Your task to perform on an android device: Open Google Chrome Image 0: 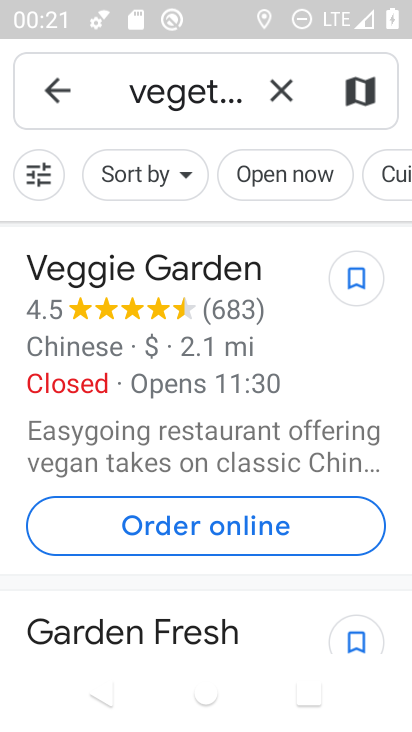
Step 0: press home button
Your task to perform on an android device: Open Google Chrome Image 1: 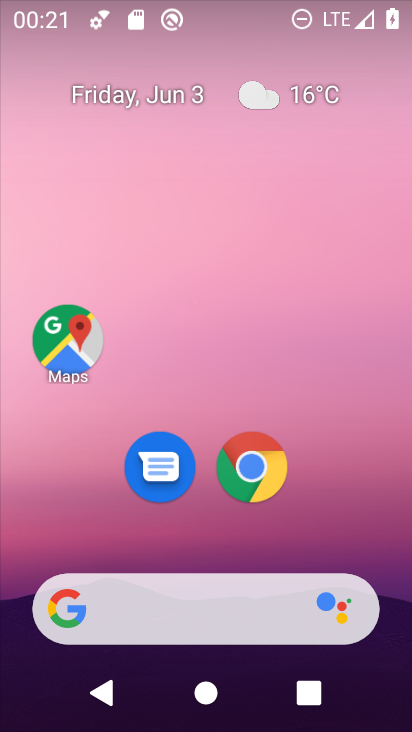
Step 1: click (247, 460)
Your task to perform on an android device: Open Google Chrome Image 2: 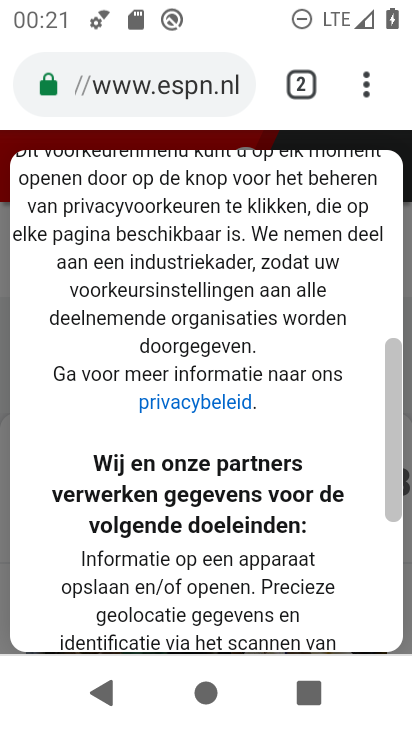
Step 2: task complete